Your task to perform on an android device: See recent photos Image 0: 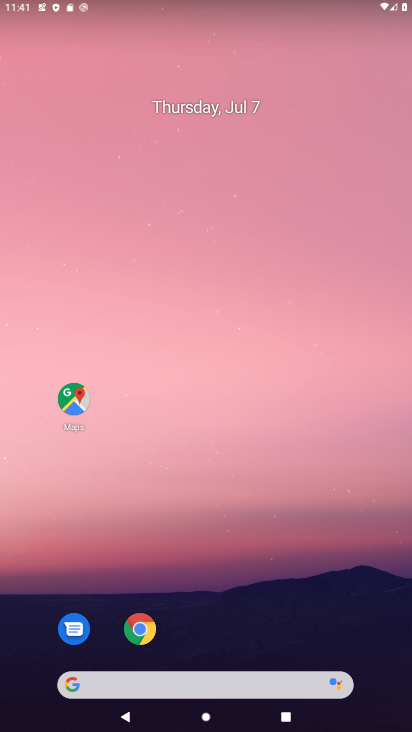
Step 0: drag from (362, 586) to (344, 37)
Your task to perform on an android device: See recent photos Image 1: 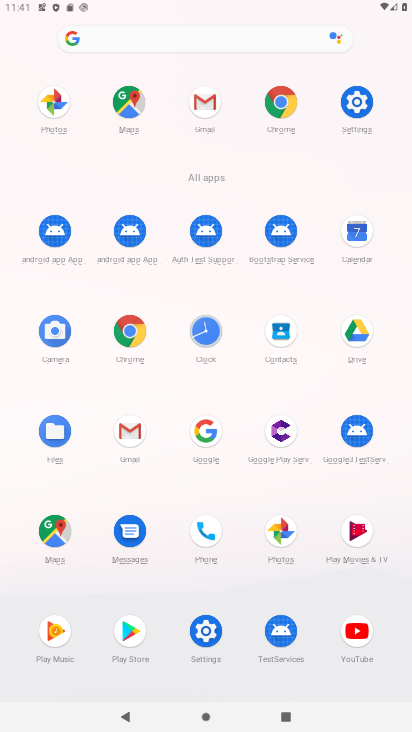
Step 1: click (280, 532)
Your task to perform on an android device: See recent photos Image 2: 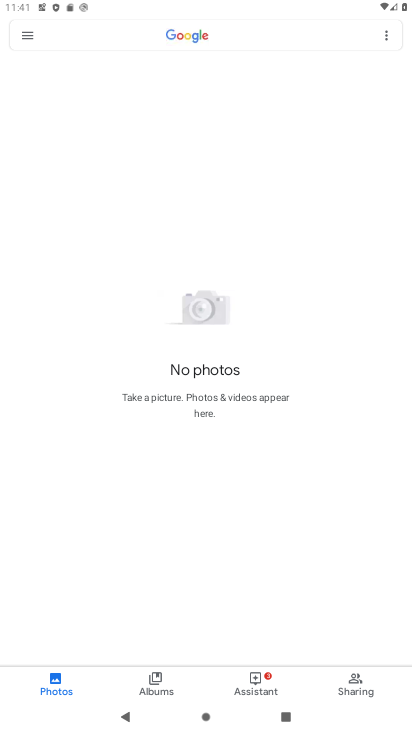
Step 2: task complete